Your task to perform on an android device: Go to ESPN.com Image 0: 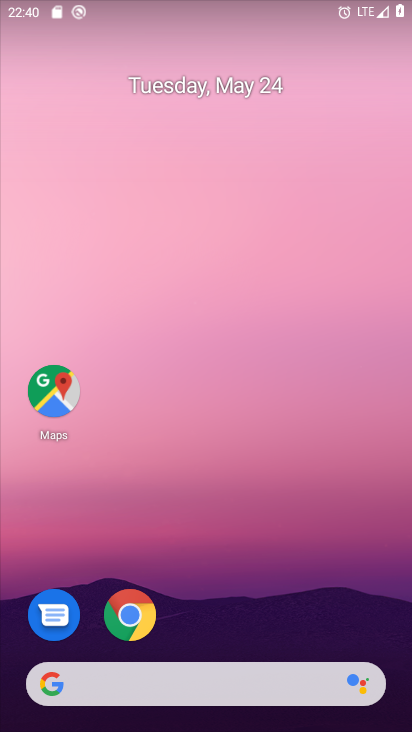
Step 0: drag from (288, 632) to (294, 329)
Your task to perform on an android device: Go to ESPN.com Image 1: 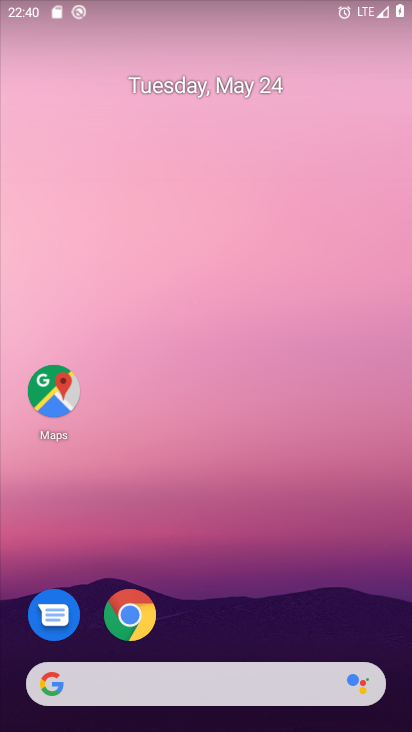
Step 1: drag from (179, 566) to (218, 231)
Your task to perform on an android device: Go to ESPN.com Image 2: 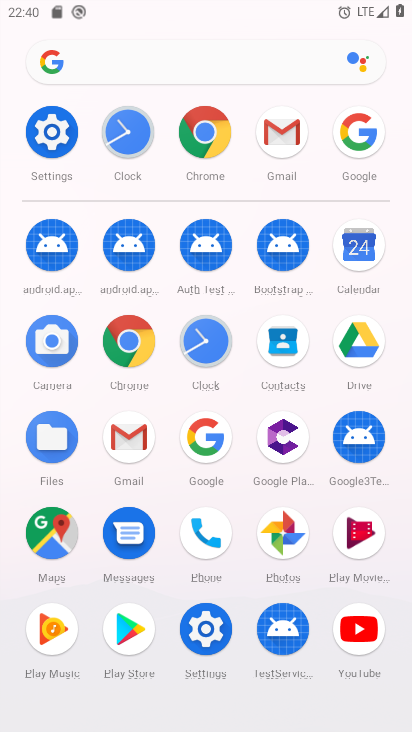
Step 2: click (196, 126)
Your task to perform on an android device: Go to ESPN.com Image 3: 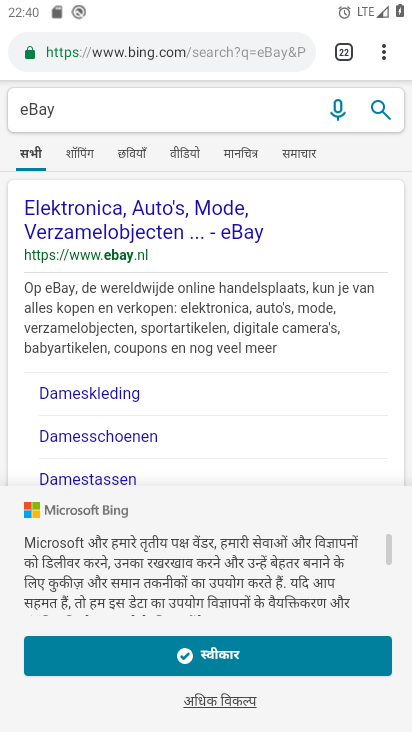
Step 3: click (378, 64)
Your task to perform on an android device: Go to ESPN.com Image 4: 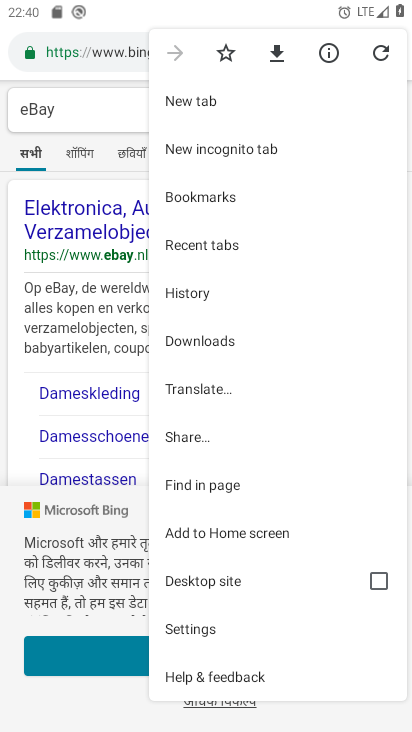
Step 4: click (264, 100)
Your task to perform on an android device: Go to ESPN.com Image 5: 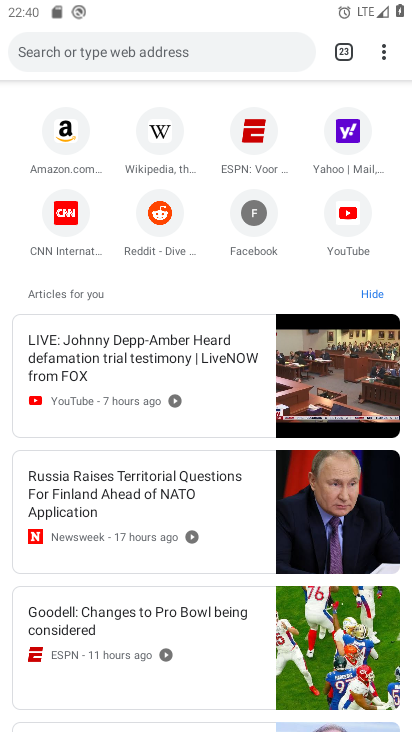
Step 5: click (250, 130)
Your task to perform on an android device: Go to ESPN.com Image 6: 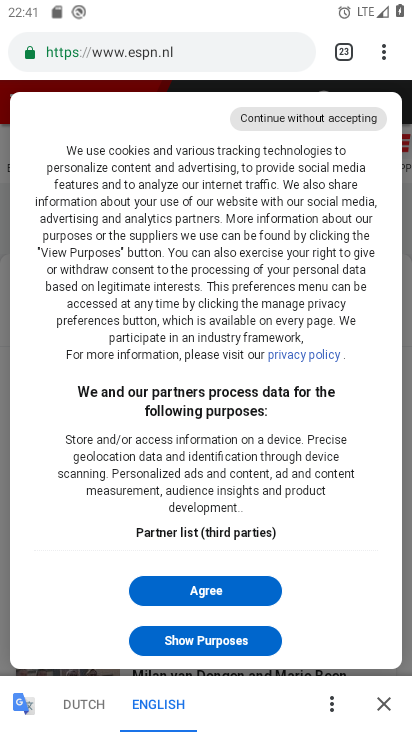
Step 6: task complete